Your task to perform on an android device: Search for pizza restaurants on Maps Image 0: 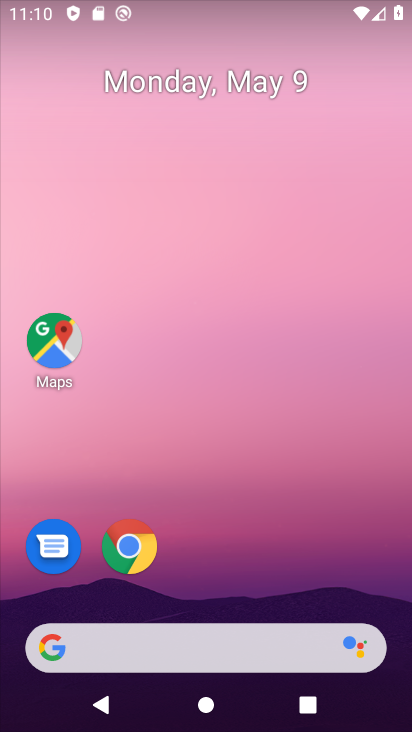
Step 0: click (52, 342)
Your task to perform on an android device: Search for pizza restaurants on Maps Image 1: 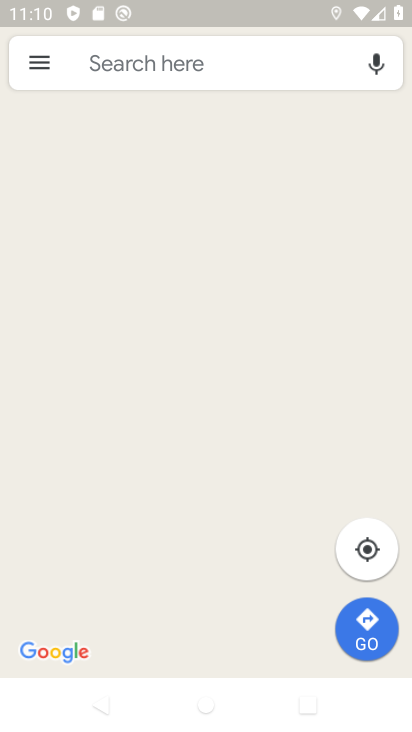
Step 1: click (147, 65)
Your task to perform on an android device: Search for pizza restaurants on Maps Image 2: 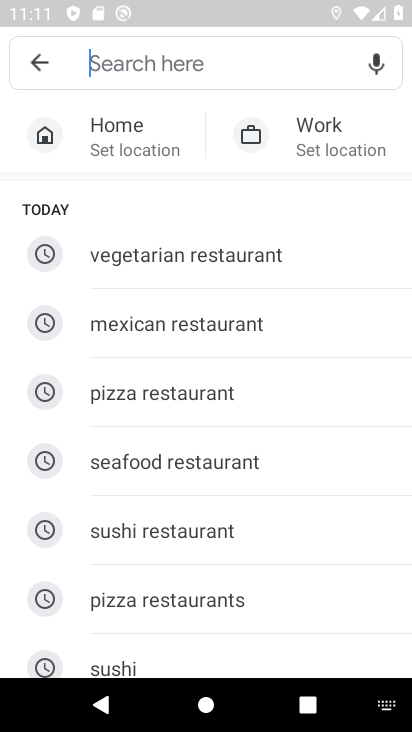
Step 2: type "pizza estaurant"
Your task to perform on an android device: Search for pizza restaurants on Maps Image 3: 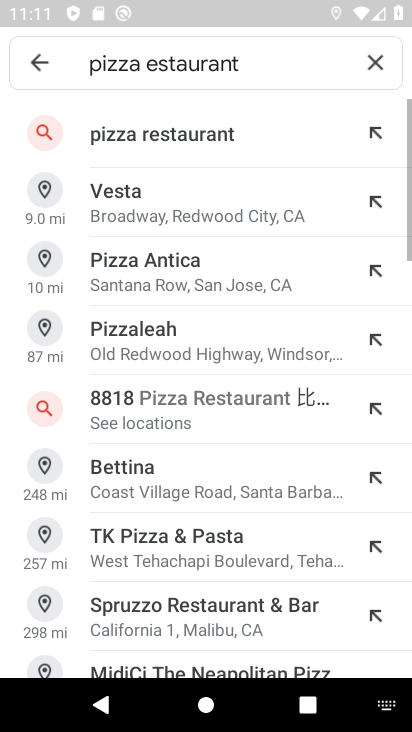
Step 3: click (137, 144)
Your task to perform on an android device: Search for pizza restaurants on Maps Image 4: 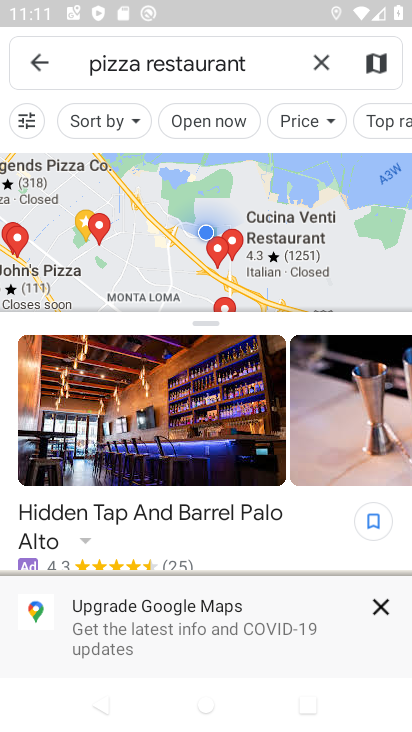
Step 4: task complete